Your task to perform on an android device: choose inbox layout in the gmail app Image 0: 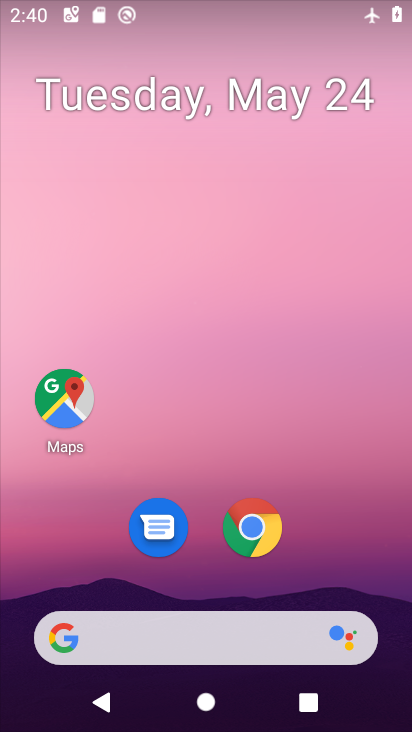
Step 0: drag from (326, 579) to (377, 577)
Your task to perform on an android device: choose inbox layout in the gmail app Image 1: 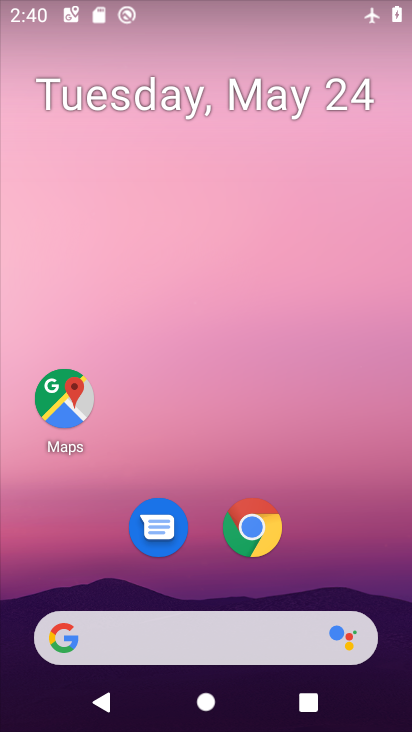
Step 1: drag from (292, 558) to (317, 28)
Your task to perform on an android device: choose inbox layout in the gmail app Image 2: 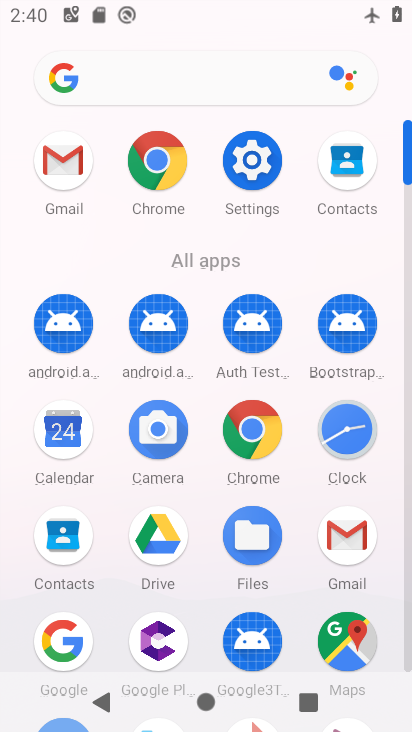
Step 2: click (61, 167)
Your task to perform on an android device: choose inbox layout in the gmail app Image 3: 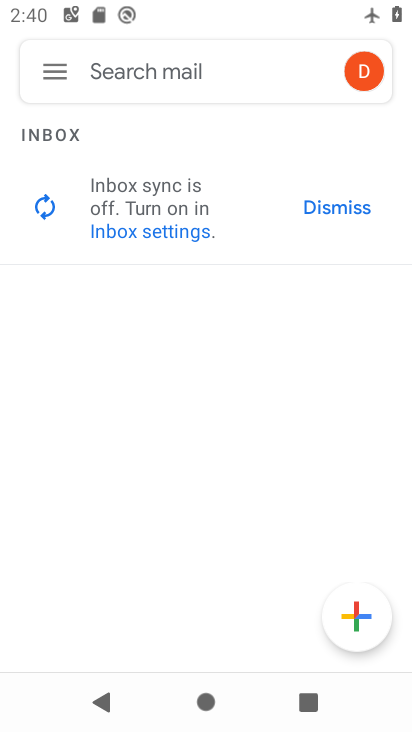
Step 3: click (57, 74)
Your task to perform on an android device: choose inbox layout in the gmail app Image 4: 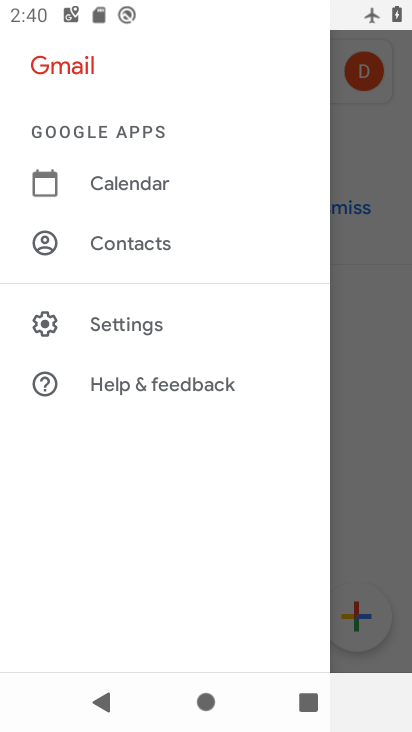
Step 4: click (79, 319)
Your task to perform on an android device: choose inbox layout in the gmail app Image 5: 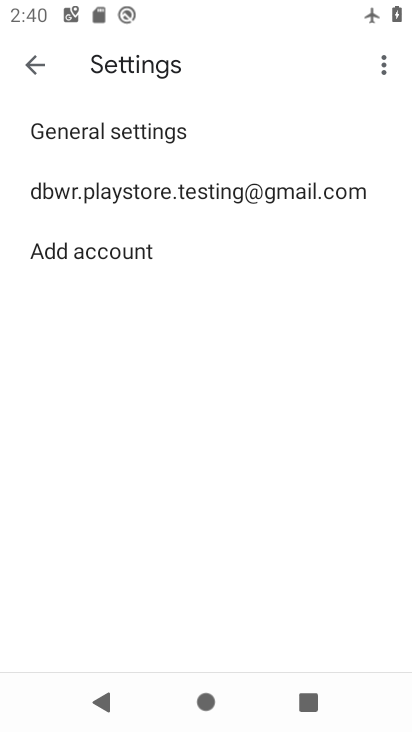
Step 5: click (110, 187)
Your task to perform on an android device: choose inbox layout in the gmail app Image 6: 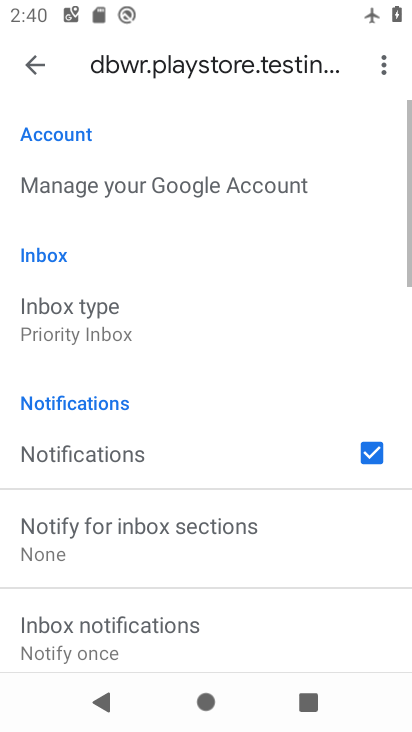
Step 6: click (57, 305)
Your task to perform on an android device: choose inbox layout in the gmail app Image 7: 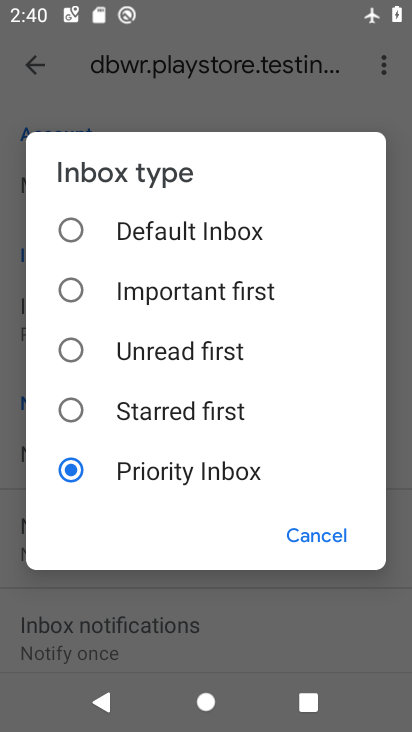
Step 7: click (74, 347)
Your task to perform on an android device: choose inbox layout in the gmail app Image 8: 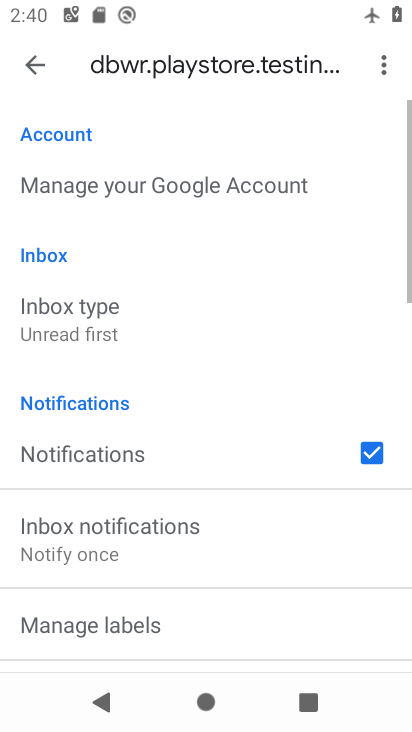
Step 8: task complete